Your task to perform on an android device: find which apps use the phone's location Image 0: 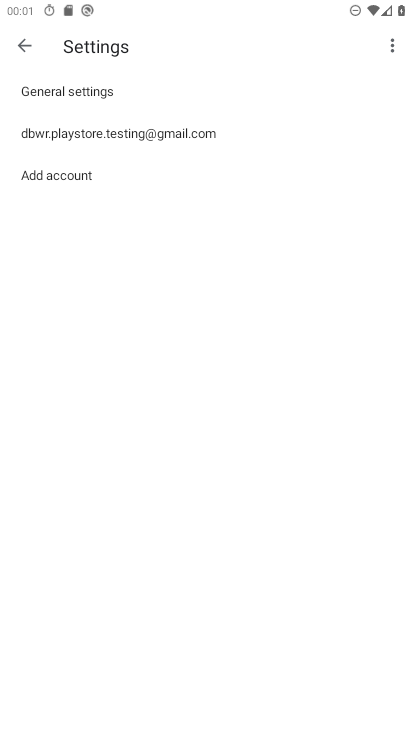
Step 0: press home button
Your task to perform on an android device: find which apps use the phone's location Image 1: 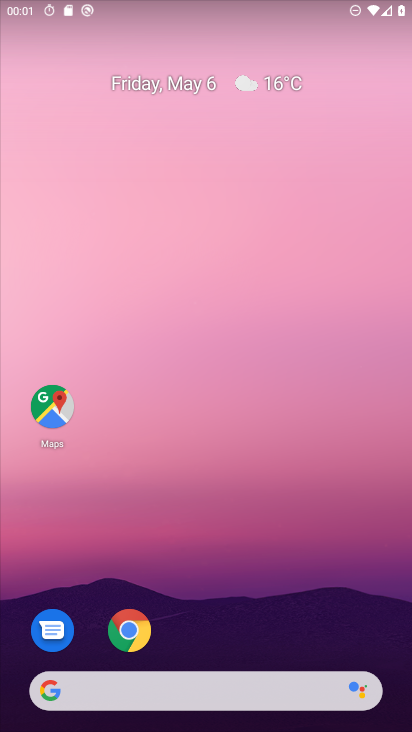
Step 1: drag from (280, 535) to (283, 142)
Your task to perform on an android device: find which apps use the phone's location Image 2: 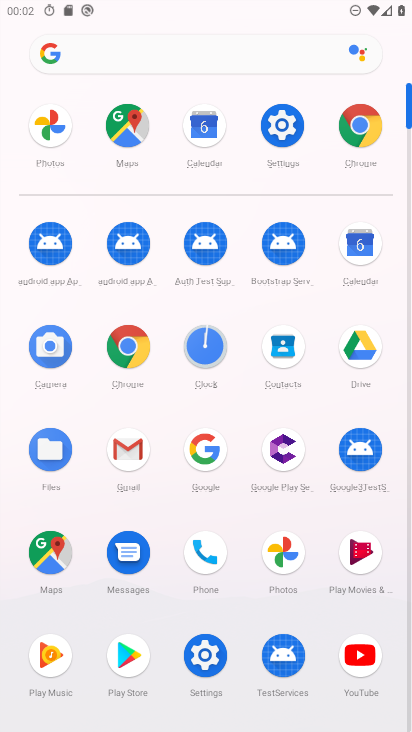
Step 2: click (277, 127)
Your task to perform on an android device: find which apps use the phone's location Image 3: 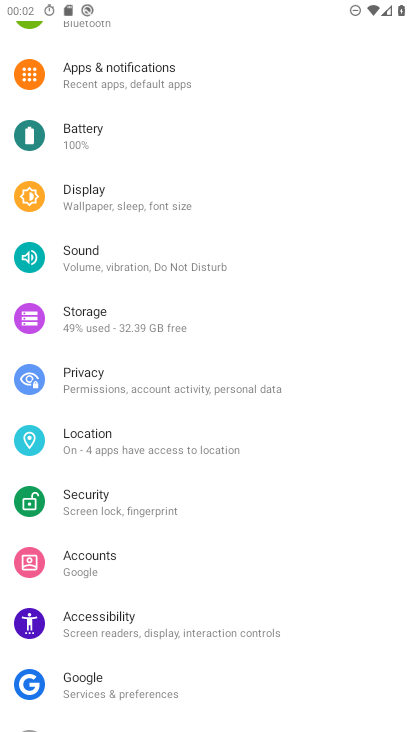
Step 3: drag from (166, 211) to (248, 129)
Your task to perform on an android device: find which apps use the phone's location Image 4: 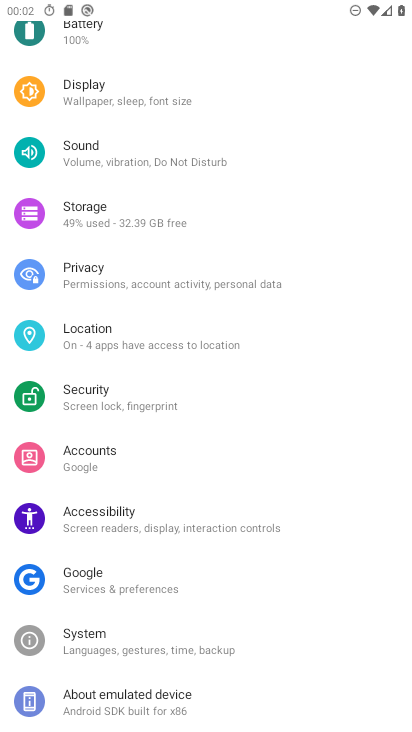
Step 4: click (109, 327)
Your task to perform on an android device: find which apps use the phone's location Image 5: 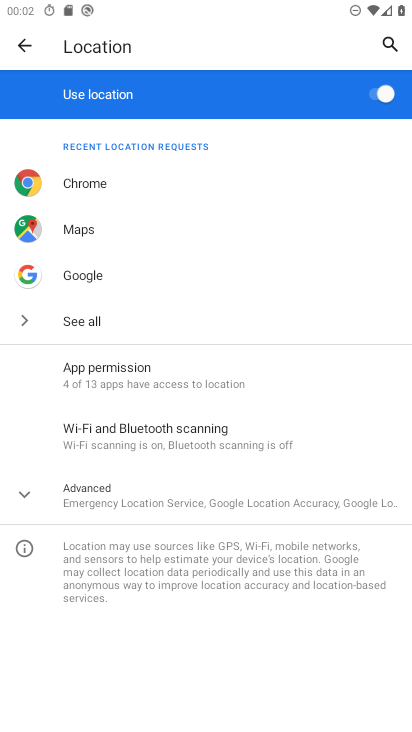
Step 5: click (167, 357)
Your task to perform on an android device: find which apps use the phone's location Image 6: 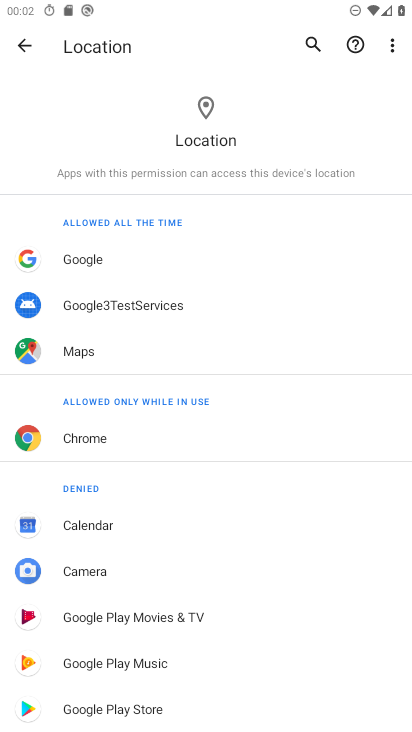
Step 6: task complete